Your task to perform on an android device: set default search engine in the chrome app Image 0: 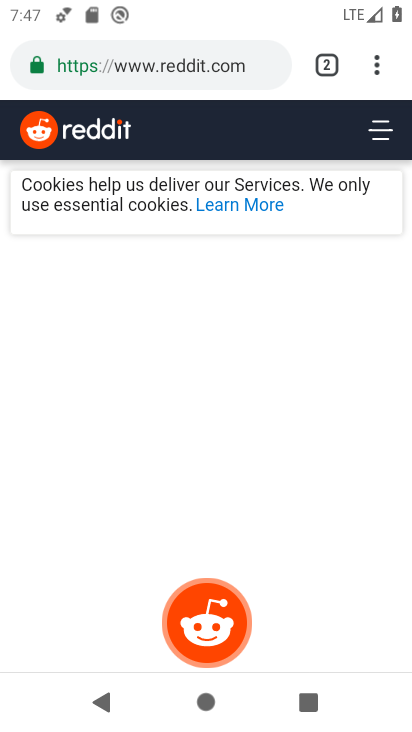
Step 0: press home button
Your task to perform on an android device: set default search engine in the chrome app Image 1: 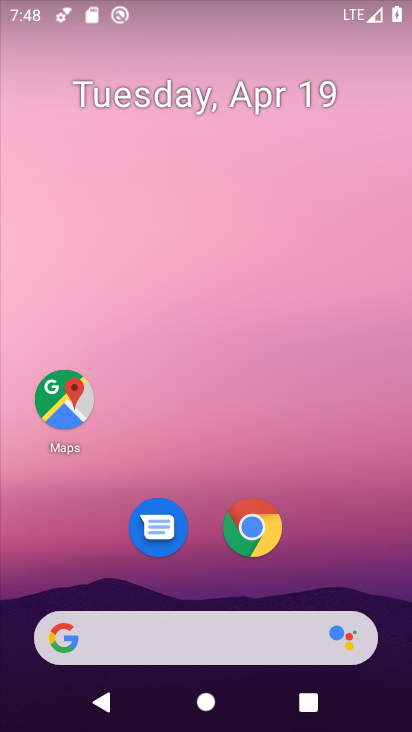
Step 1: click (262, 531)
Your task to perform on an android device: set default search engine in the chrome app Image 2: 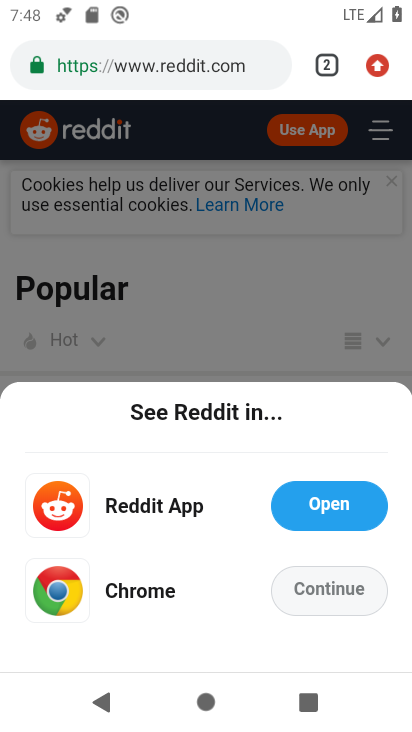
Step 2: click (386, 74)
Your task to perform on an android device: set default search engine in the chrome app Image 3: 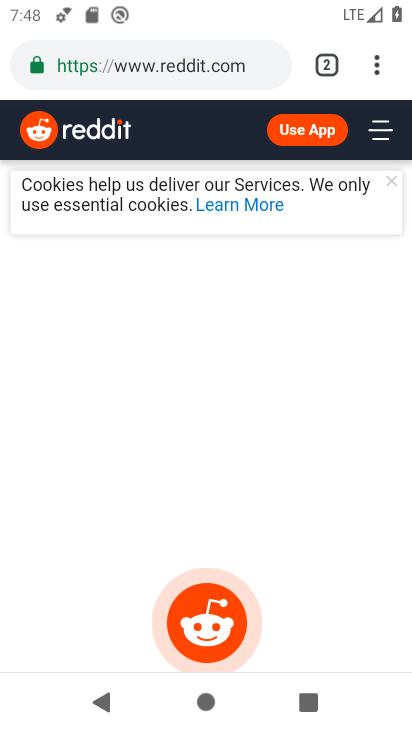
Step 3: click (386, 74)
Your task to perform on an android device: set default search engine in the chrome app Image 4: 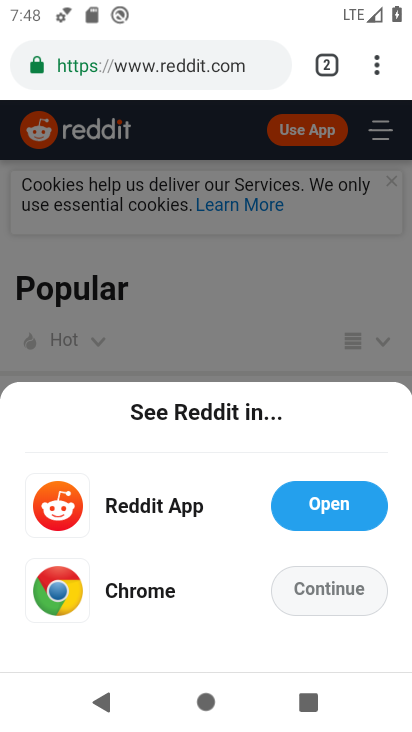
Step 4: click (385, 73)
Your task to perform on an android device: set default search engine in the chrome app Image 5: 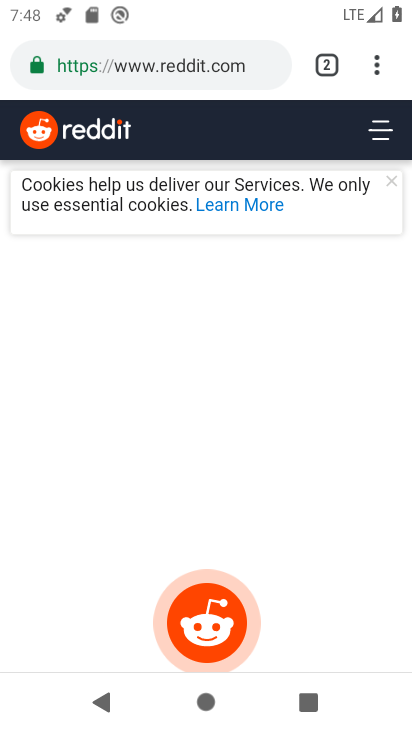
Step 5: click (363, 79)
Your task to perform on an android device: set default search engine in the chrome app Image 6: 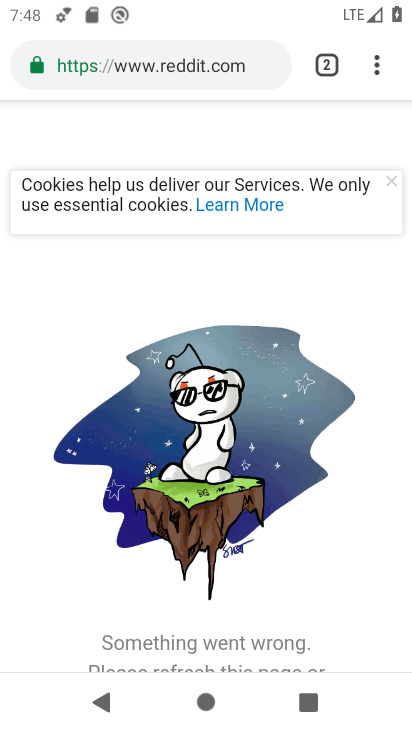
Step 6: click (363, 82)
Your task to perform on an android device: set default search engine in the chrome app Image 7: 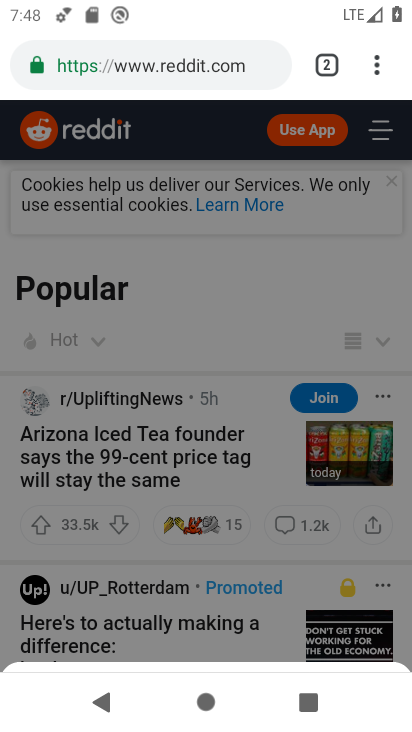
Step 7: click (352, 90)
Your task to perform on an android device: set default search engine in the chrome app Image 8: 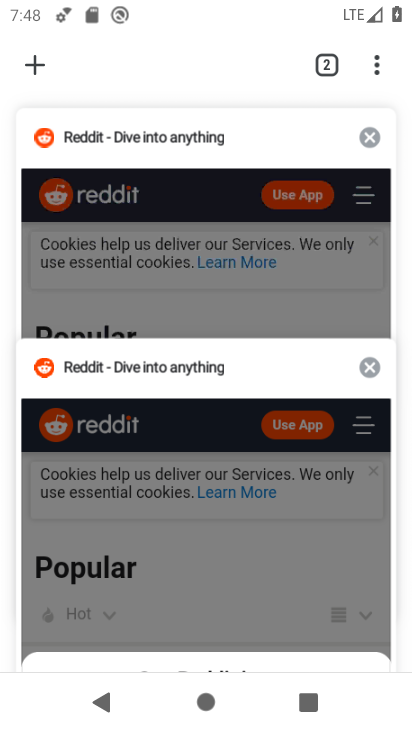
Step 8: click (379, 87)
Your task to perform on an android device: set default search engine in the chrome app Image 9: 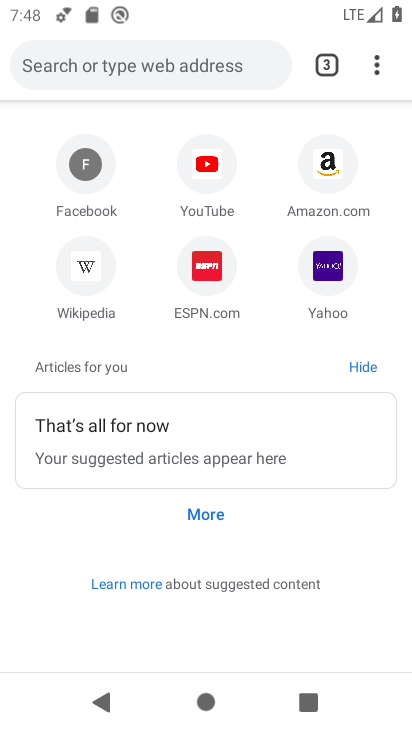
Step 9: click (376, 71)
Your task to perform on an android device: set default search engine in the chrome app Image 10: 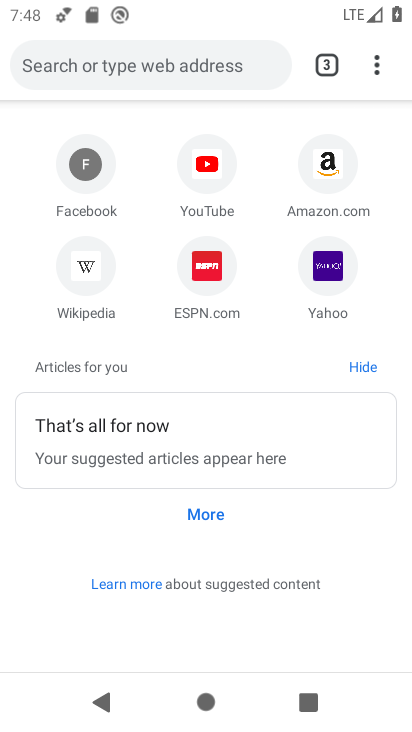
Step 10: click (409, 65)
Your task to perform on an android device: set default search engine in the chrome app Image 11: 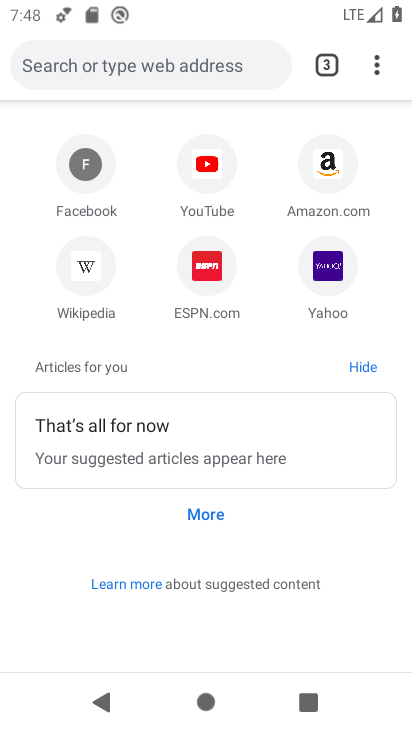
Step 11: click (381, 69)
Your task to perform on an android device: set default search engine in the chrome app Image 12: 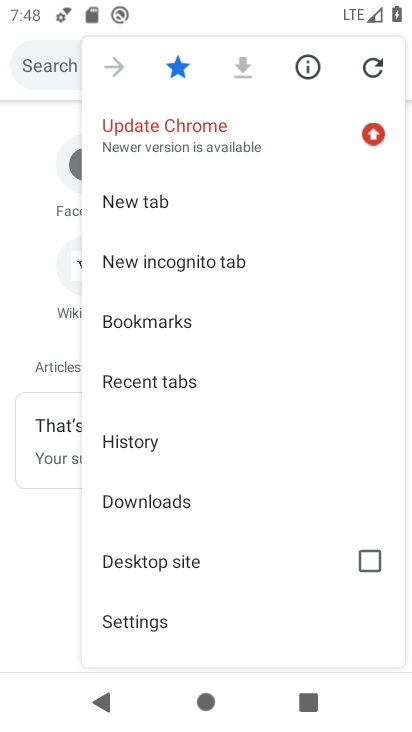
Step 12: click (162, 625)
Your task to perform on an android device: set default search engine in the chrome app Image 13: 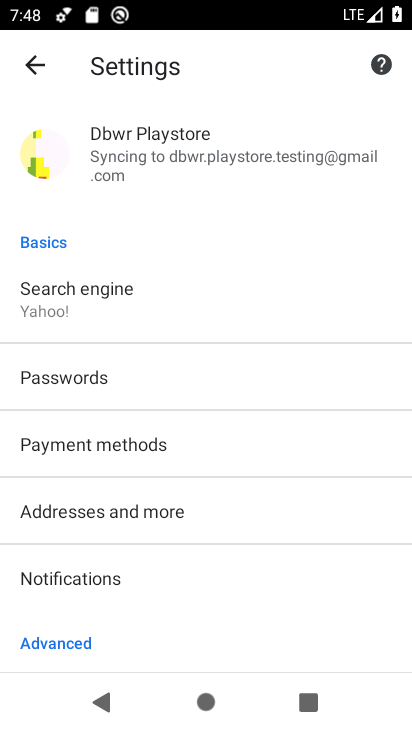
Step 13: click (111, 279)
Your task to perform on an android device: set default search engine in the chrome app Image 14: 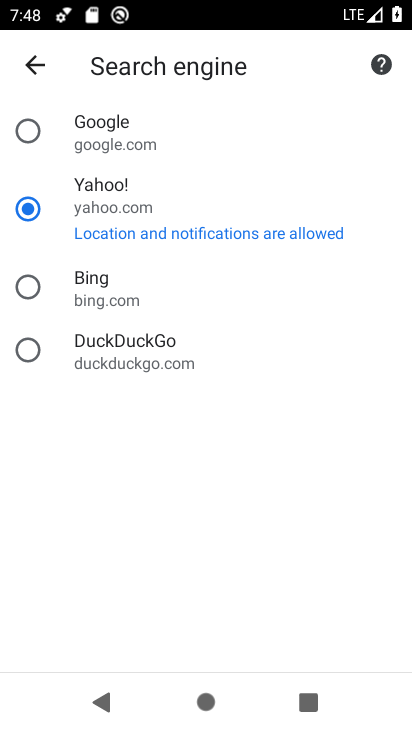
Step 14: click (111, 137)
Your task to perform on an android device: set default search engine in the chrome app Image 15: 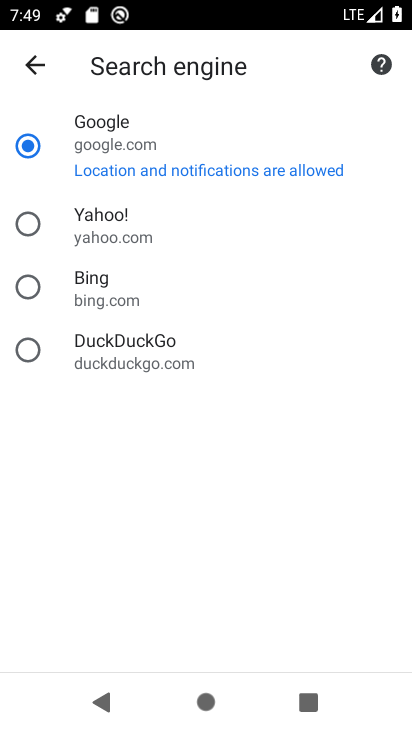
Step 15: task complete